Your task to perform on an android device: change the upload size in google photos Image 0: 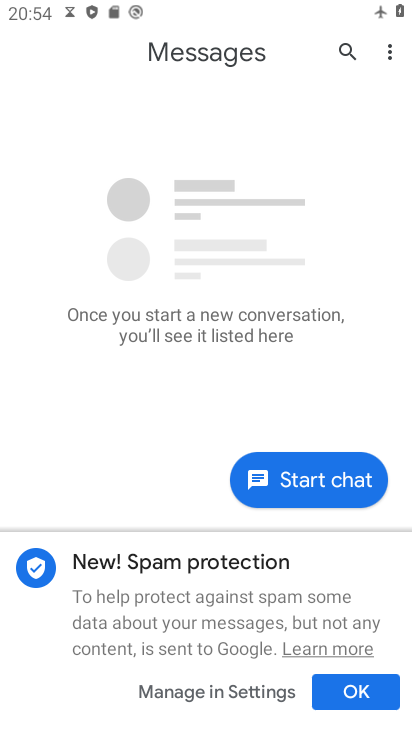
Step 0: press back button
Your task to perform on an android device: change the upload size in google photos Image 1: 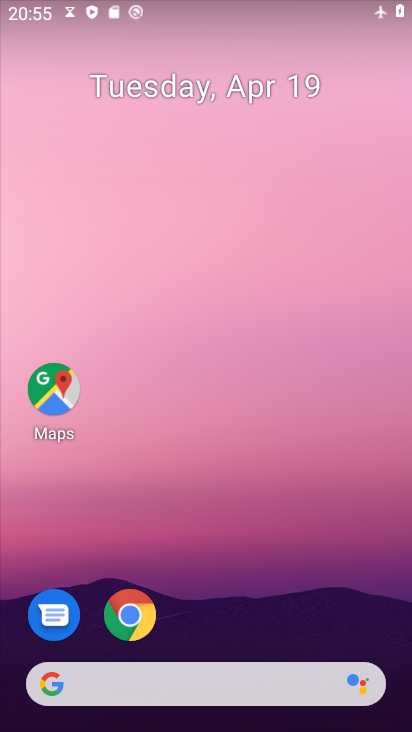
Step 1: drag from (399, 640) to (262, 0)
Your task to perform on an android device: change the upload size in google photos Image 2: 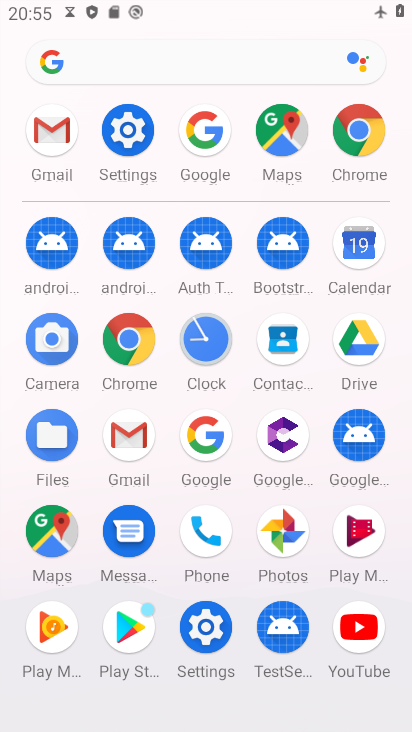
Step 2: click (280, 525)
Your task to perform on an android device: change the upload size in google photos Image 3: 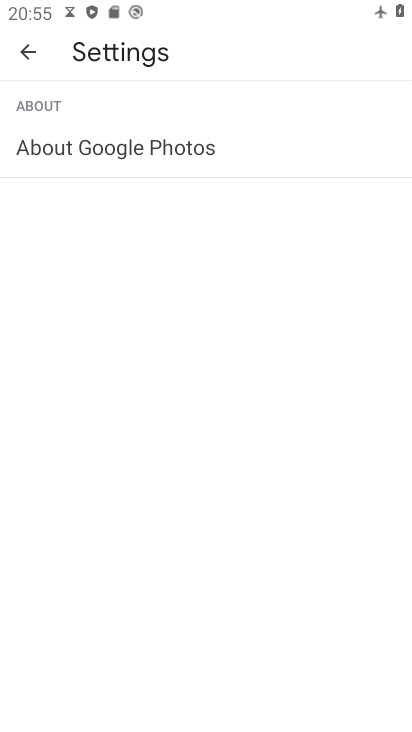
Step 3: click (39, 43)
Your task to perform on an android device: change the upload size in google photos Image 4: 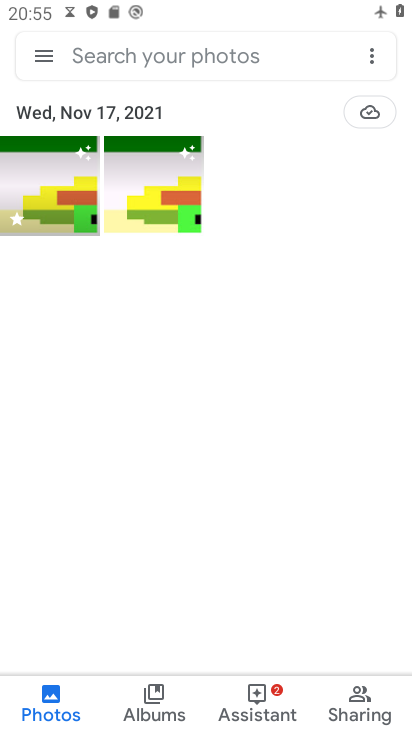
Step 4: click (46, 46)
Your task to perform on an android device: change the upload size in google photos Image 5: 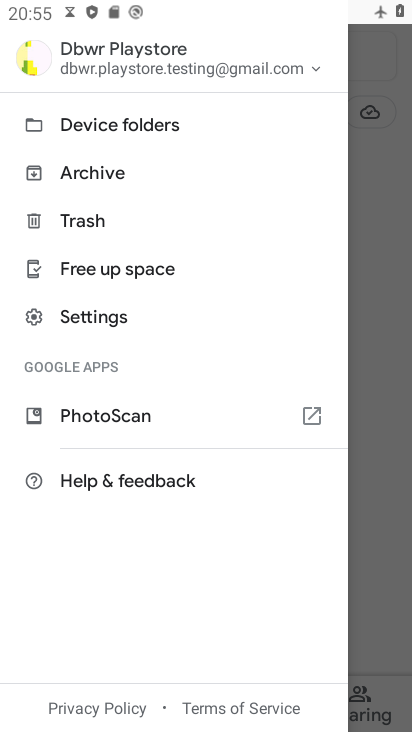
Step 5: click (113, 309)
Your task to perform on an android device: change the upload size in google photos Image 6: 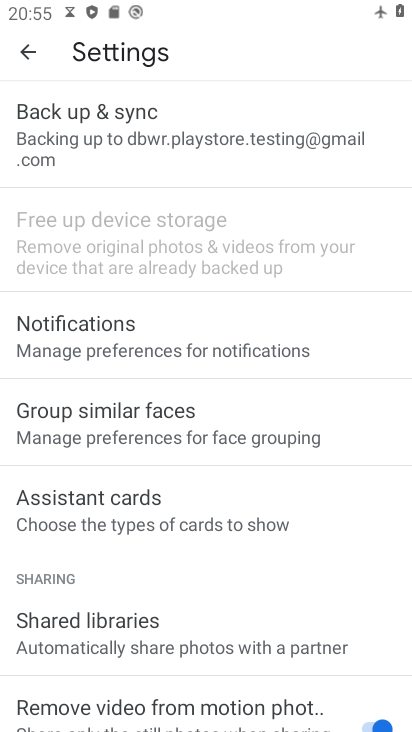
Step 6: click (194, 142)
Your task to perform on an android device: change the upload size in google photos Image 7: 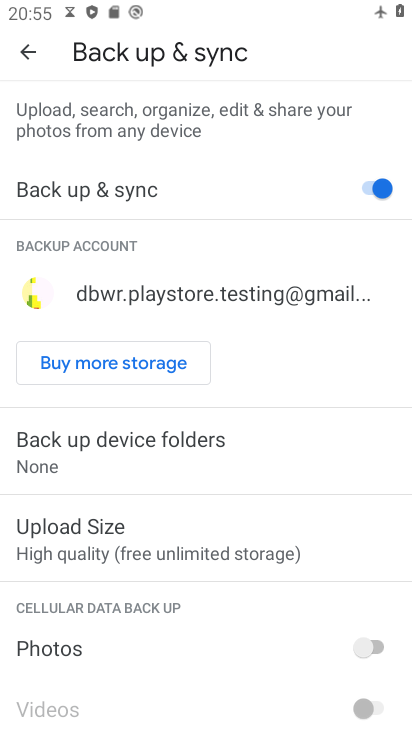
Step 7: click (162, 519)
Your task to perform on an android device: change the upload size in google photos Image 8: 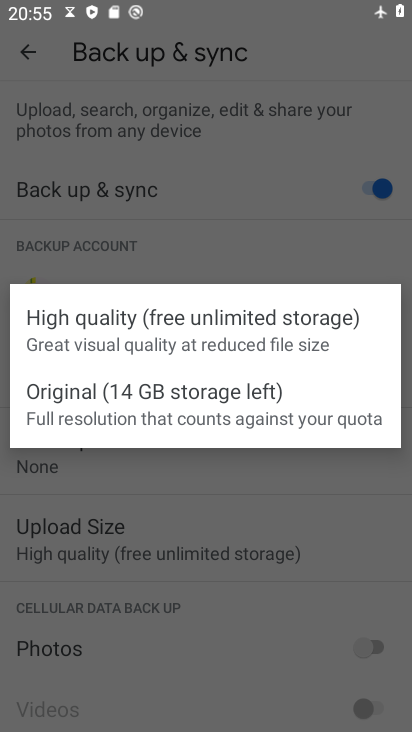
Step 8: click (98, 403)
Your task to perform on an android device: change the upload size in google photos Image 9: 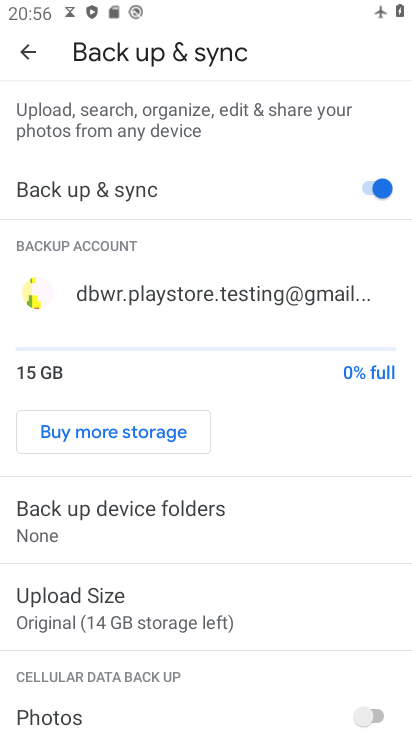
Step 9: task complete